Your task to perform on an android device: turn off wifi Image 0: 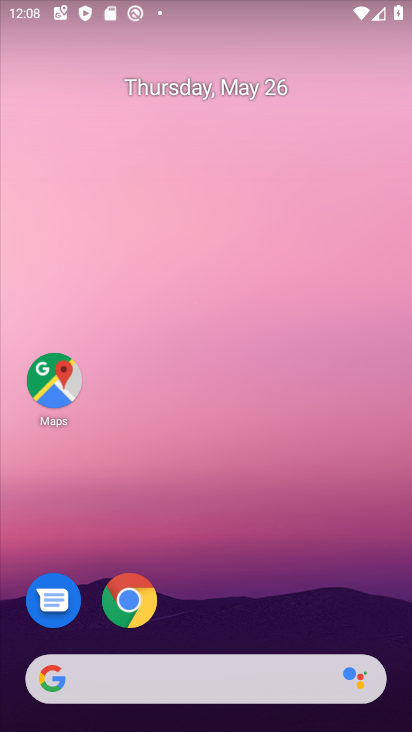
Step 0: drag from (260, 586) to (309, 115)
Your task to perform on an android device: turn off wifi Image 1: 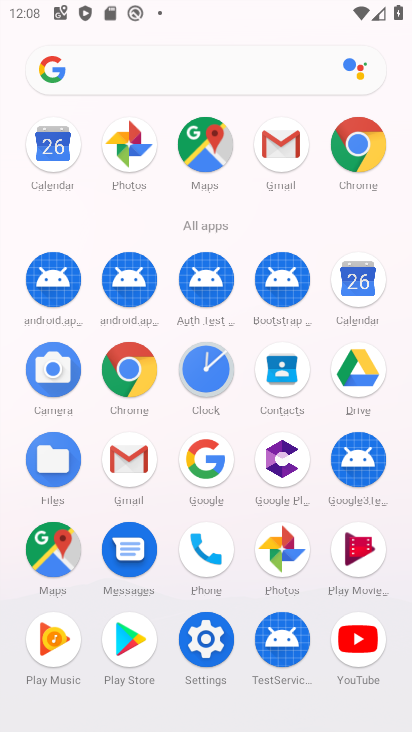
Step 1: click (216, 628)
Your task to perform on an android device: turn off wifi Image 2: 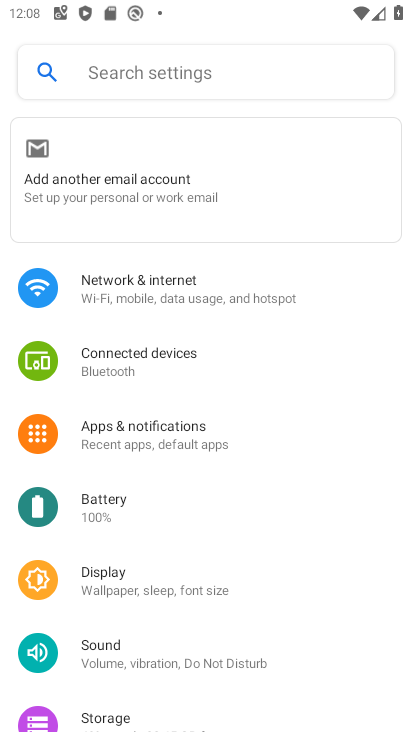
Step 2: click (179, 290)
Your task to perform on an android device: turn off wifi Image 3: 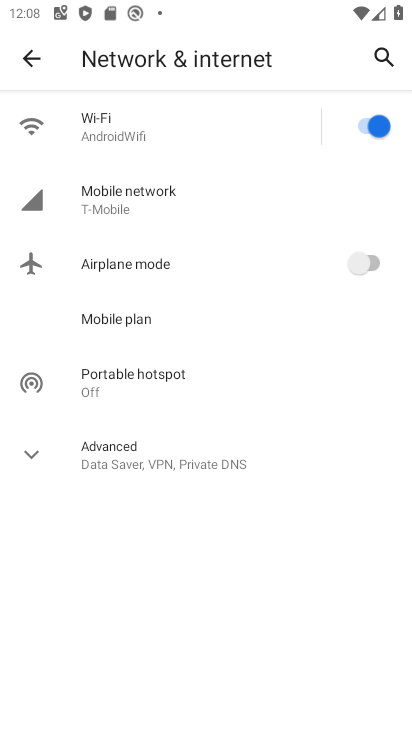
Step 3: click (357, 122)
Your task to perform on an android device: turn off wifi Image 4: 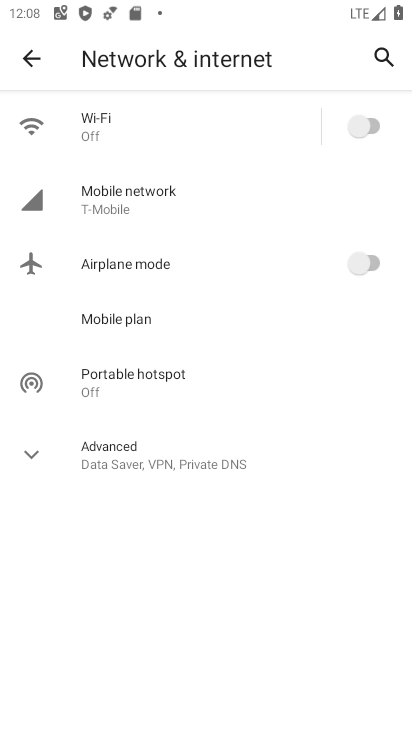
Step 4: task complete